Your task to perform on an android device: What's on my calendar today? Image 0: 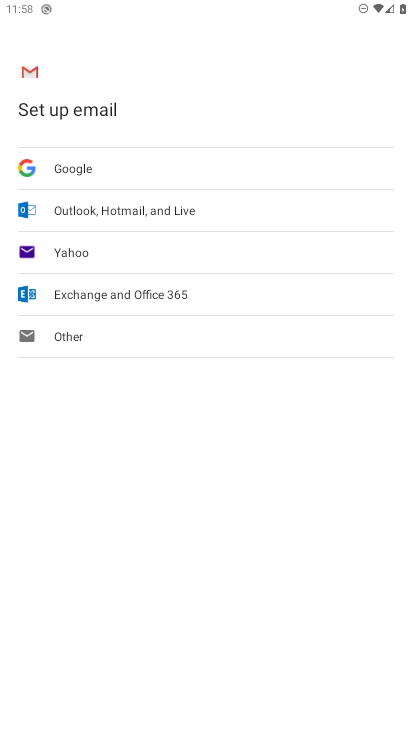
Step 0: press home button
Your task to perform on an android device: What's on my calendar today? Image 1: 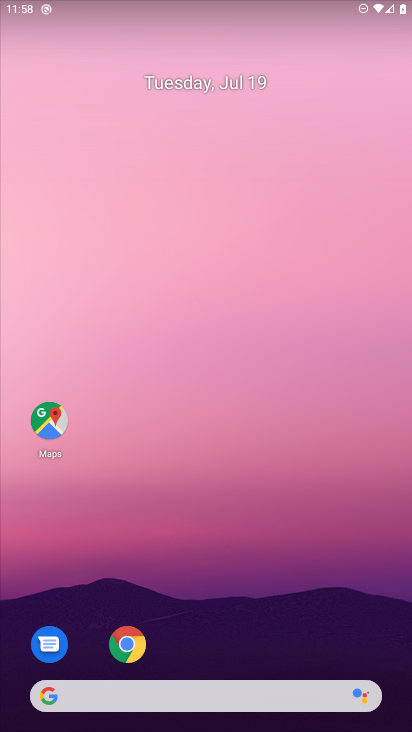
Step 1: drag from (22, 701) to (245, 231)
Your task to perform on an android device: What's on my calendar today? Image 2: 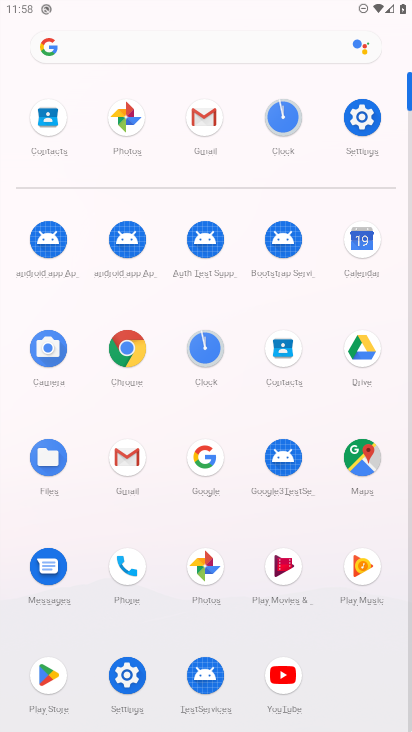
Step 2: click (356, 240)
Your task to perform on an android device: What's on my calendar today? Image 3: 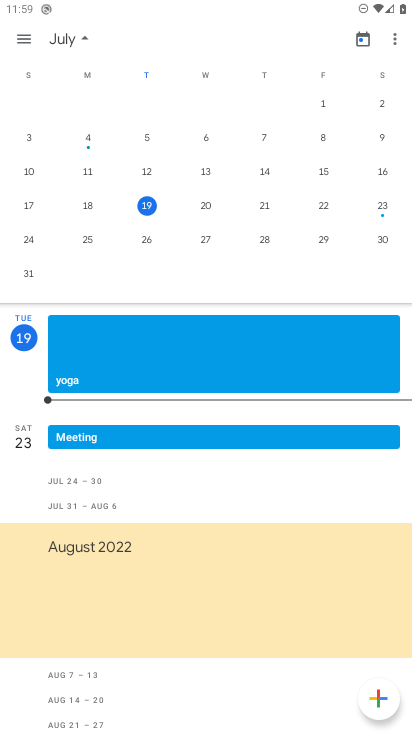
Step 3: task complete